Your task to perform on an android device: turn on notifications settings in the gmail app Image 0: 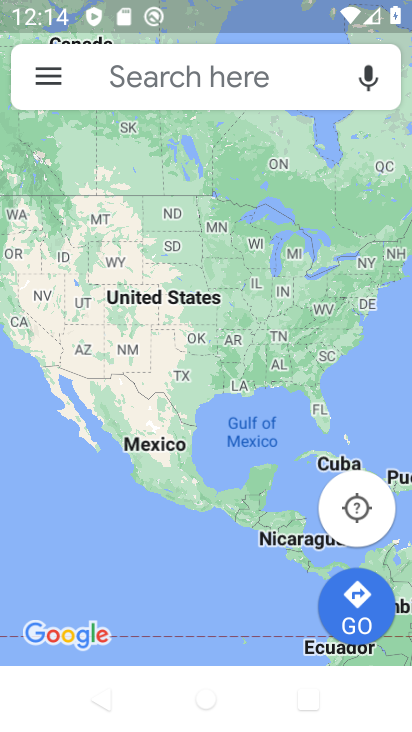
Step 0: press home button
Your task to perform on an android device: turn on notifications settings in the gmail app Image 1: 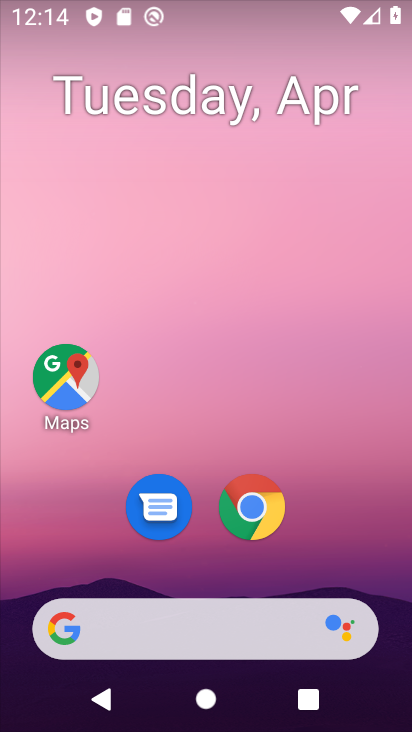
Step 1: drag from (194, 579) to (200, 92)
Your task to perform on an android device: turn on notifications settings in the gmail app Image 2: 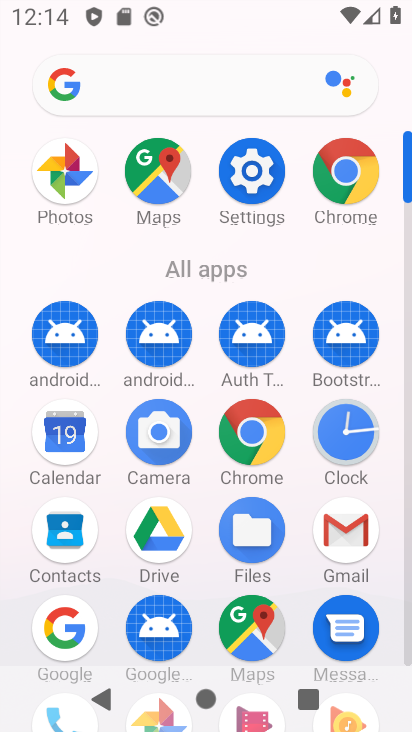
Step 2: click (350, 531)
Your task to perform on an android device: turn on notifications settings in the gmail app Image 3: 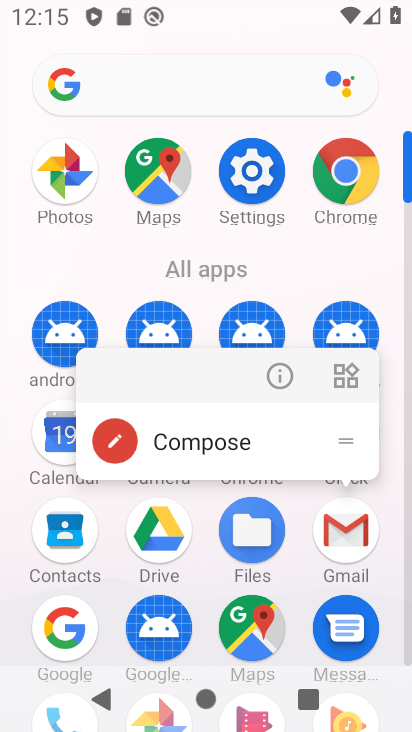
Step 3: click (347, 529)
Your task to perform on an android device: turn on notifications settings in the gmail app Image 4: 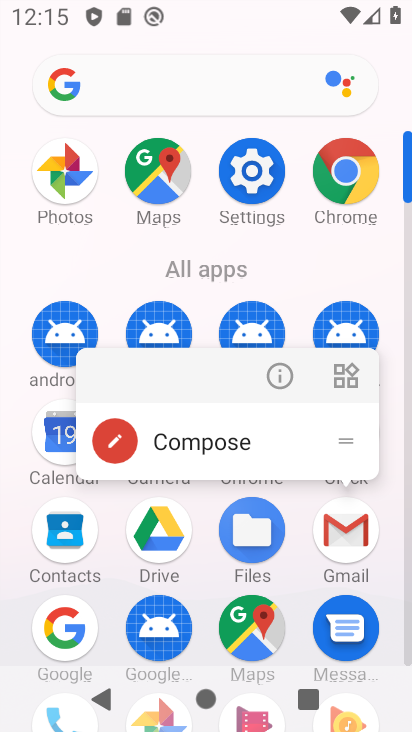
Step 4: click (347, 529)
Your task to perform on an android device: turn on notifications settings in the gmail app Image 5: 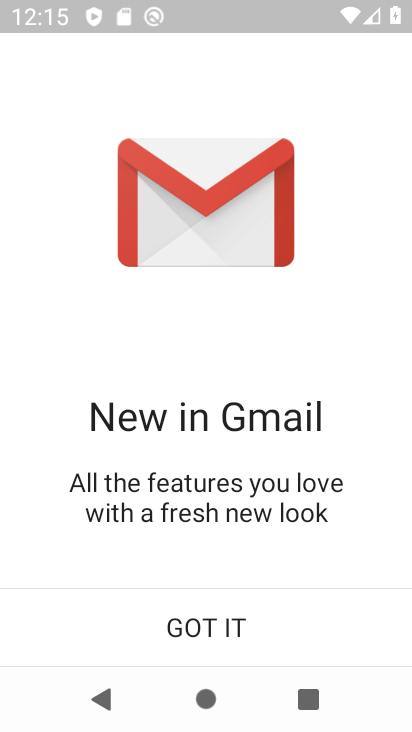
Step 5: click (220, 617)
Your task to perform on an android device: turn on notifications settings in the gmail app Image 6: 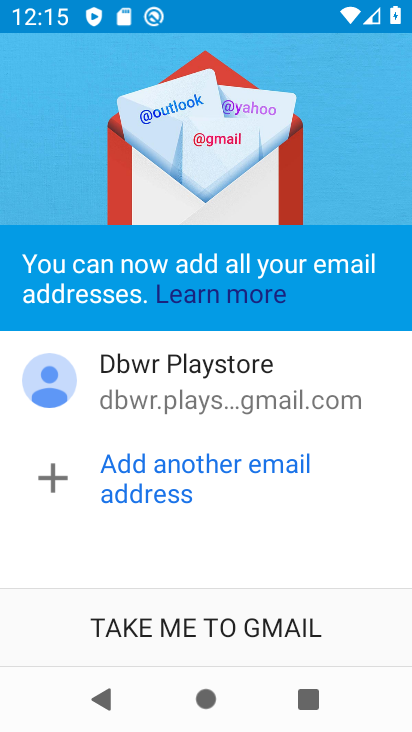
Step 6: click (271, 613)
Your task to perform on an android device: turn on notifications settings in the gmail app Image 7: 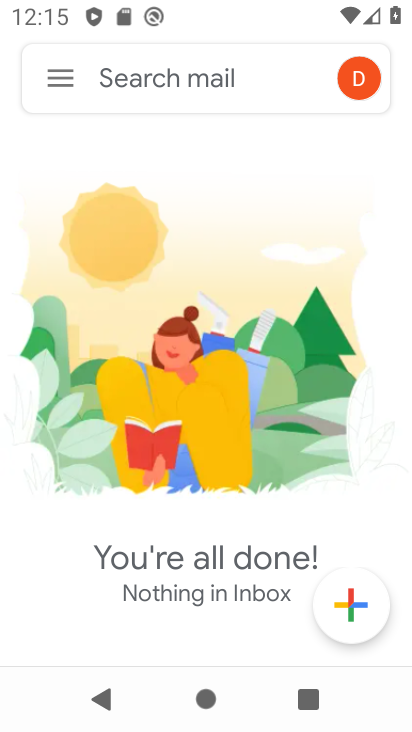
Step 7: click (60, 77)
Your task to perform on an android device: turn on notifications settings in the gmail app Image 8: 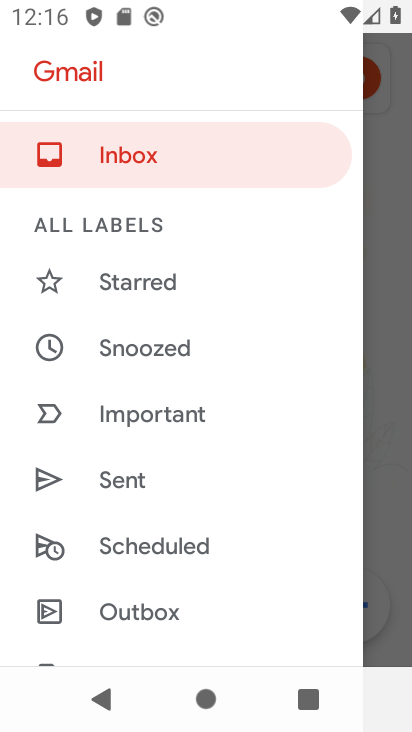
Step 8: drag from (197, 609) to (209, 144)
Your task to perform on an android device: turn on notifications settings in the gmail app Image 9: 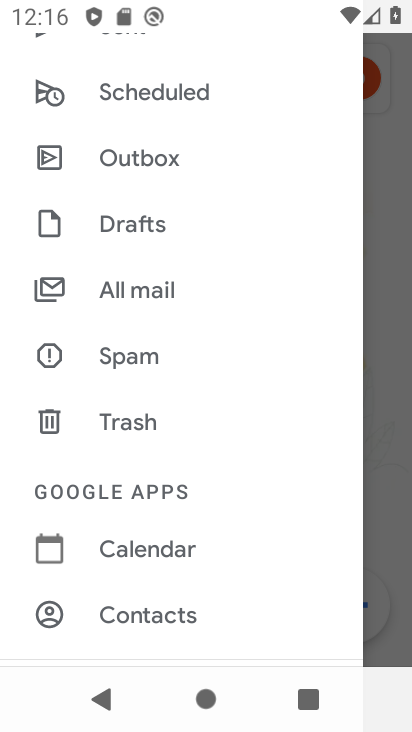
Step 9: drag from (211, 597) to (182, 135)
Your task to perform on an android device: turn on notifications settings in the gmail app Image 10: 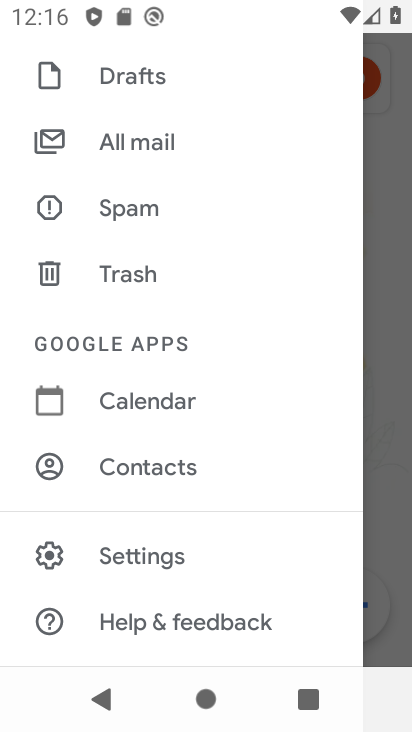
Step 10: click (118, 550)
Your task to perform on an android device: turn on notifications settings in the gmail app Image 11: 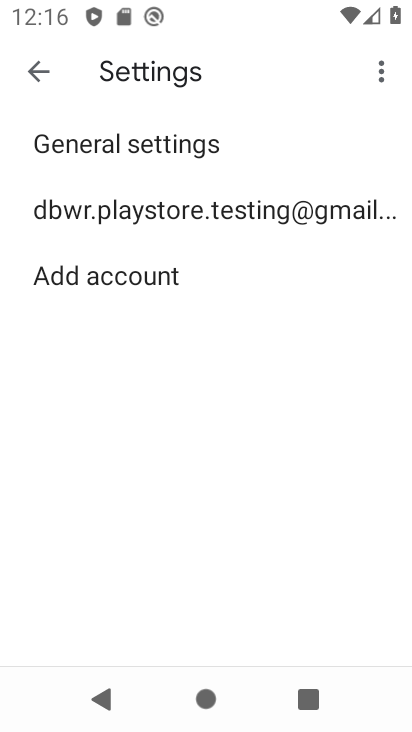
Step 11: click (178, 199)
Your task to perform on an android device: turn on notifications settings in the gmail app Image 12: 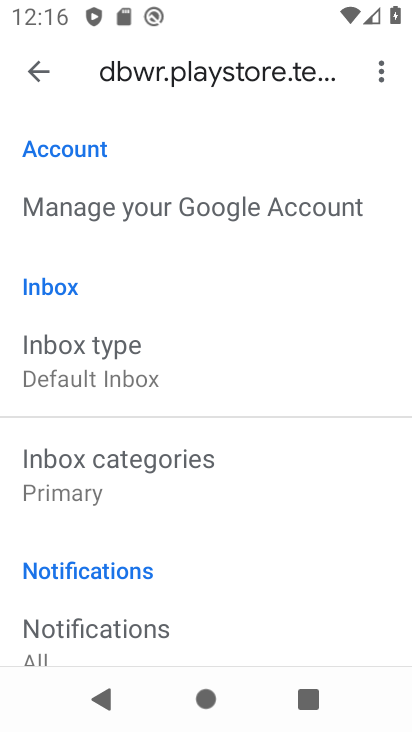
Step 12: click (141, 615)
Your task to perform on an android device: turn on notifications settings in the gmail app Image 13: 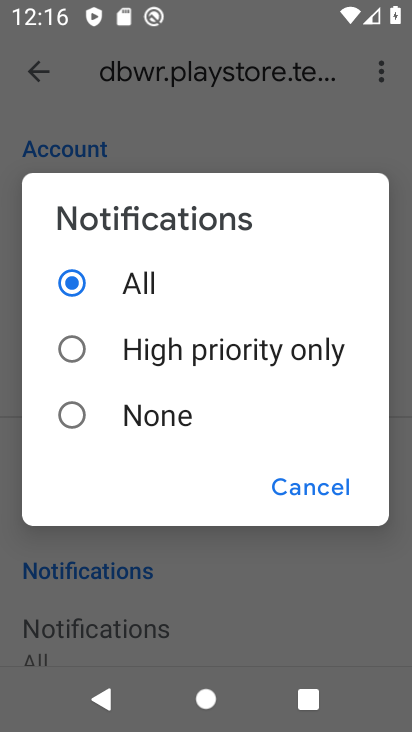
Step 13: task complete